Your task to perform on an android device: Open Google Chrome and open the bookmarks view Image 0: 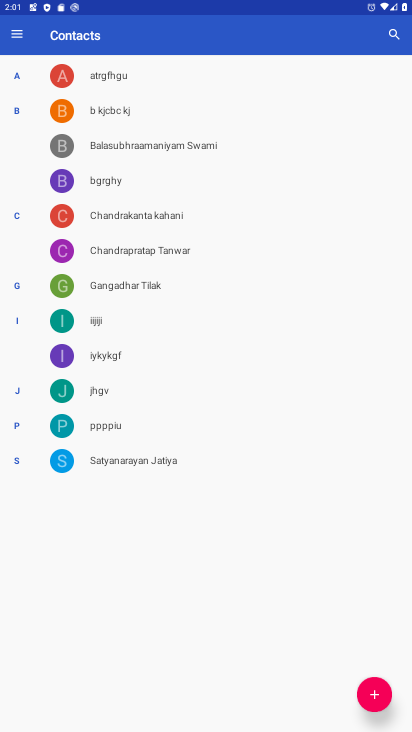
Step 0: press home button
Your task to perform on an android device: Open Google Chrome and open the bookmarks view Image 1: 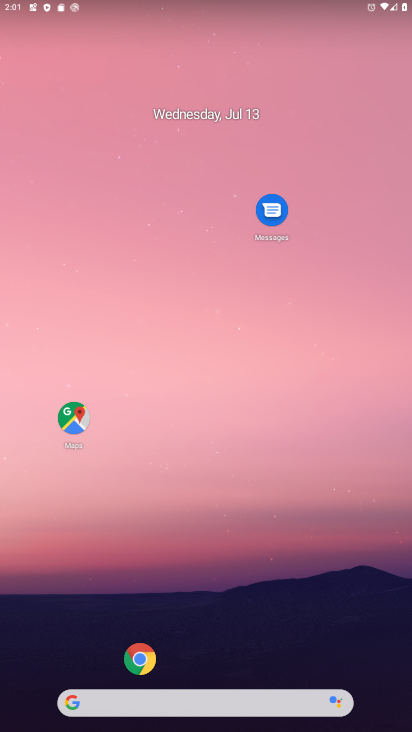
Step 1: click (135, 651)
Your task to perform on an android device: Open Google Chrome and open the bookmarks view Image 2: 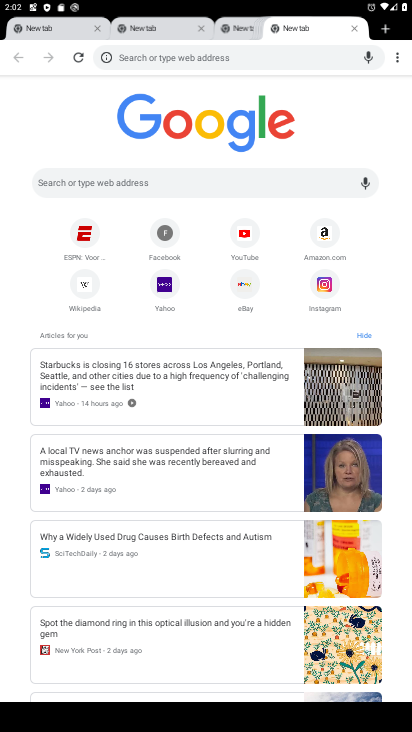
Step 2: click (399, 52)
Your task to perform on an android device: Open Google Chrome and open the bookmarks view Image 3: 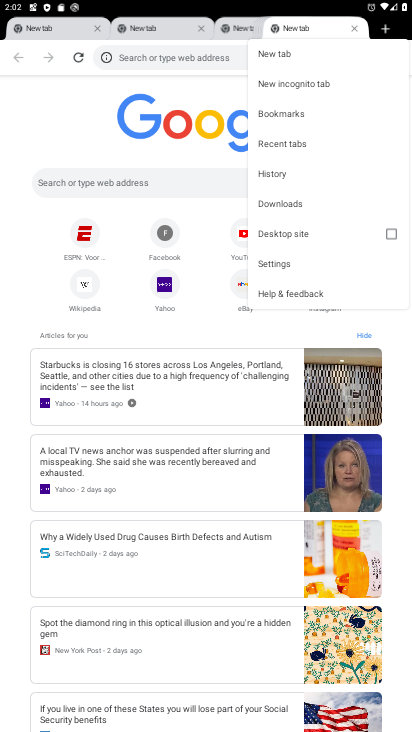
Step 3: click (294, 116)
Your task to perform on an android device: Open Google Chrome and open the bookmarks view Image 4: 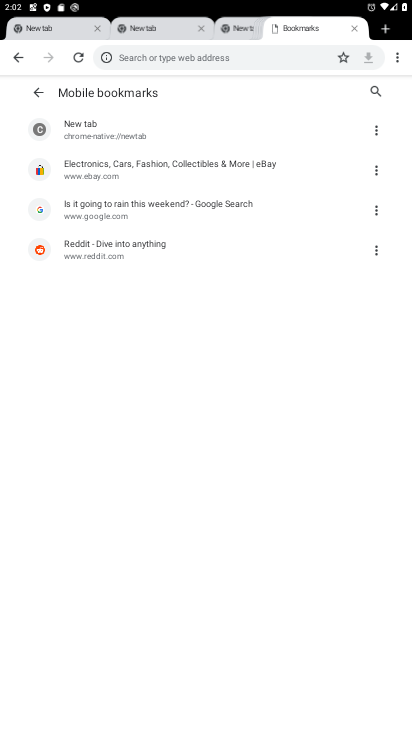
Step 4: task complete